Your task to perform on an android device: Open ESPN.com Image 0: 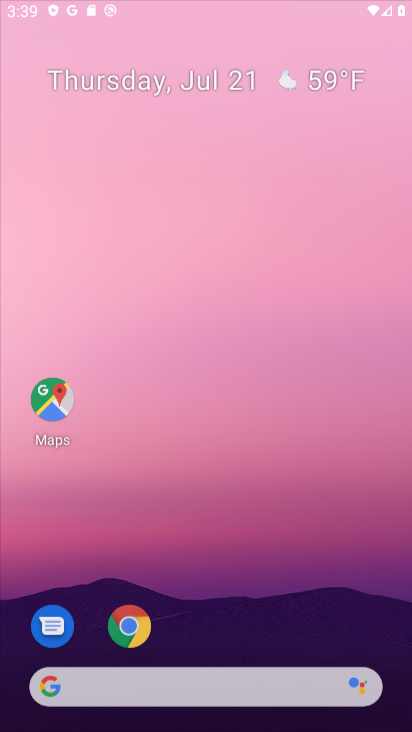
Step 0: click (143, 211)
Your task to perform on an android device: Open ESPN.com Image 1: 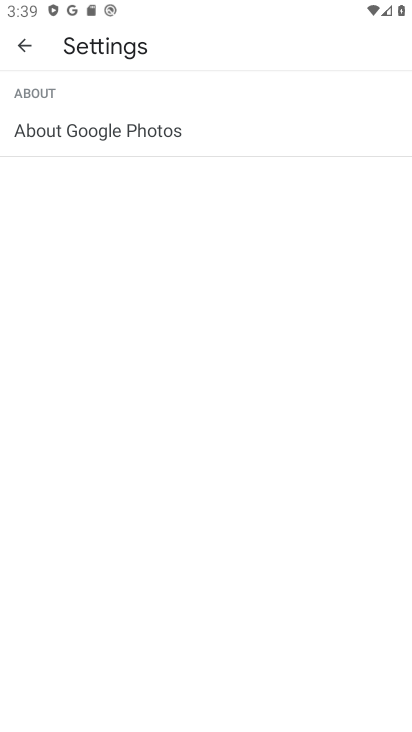
Step 1: drag from (159, 563) to (169, 154)
Your task to perform on an android device: Open ESPN.com Image 2: 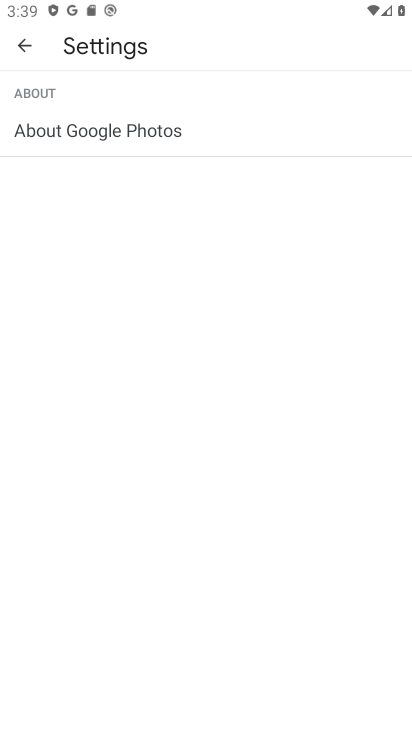
Step 2: click (25, 42)
Your task to perform on an android device: Open ESPN.com Image 3: 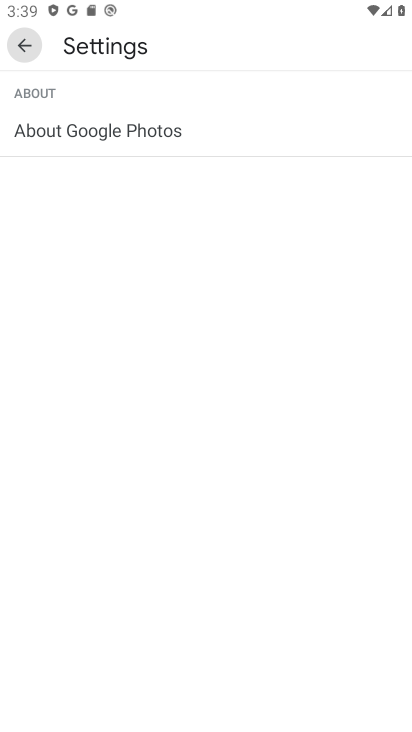
Step 3: click (25, 42)
Your task to perform on an android device: Open ESPN.com Image 4: 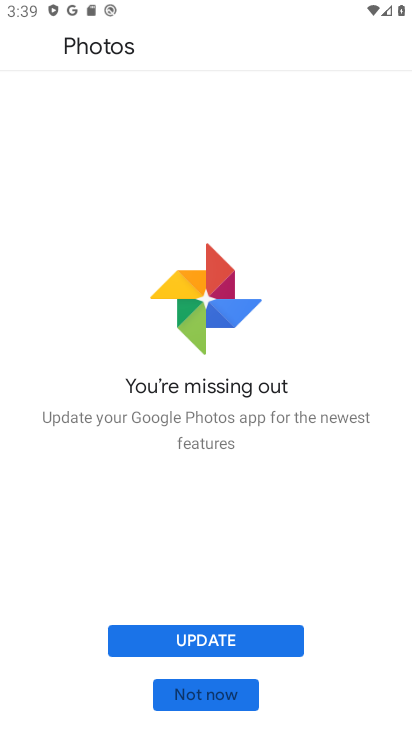
Step 4: press back button
Your task to perform on an android device: Open ESPN.com Image 5: 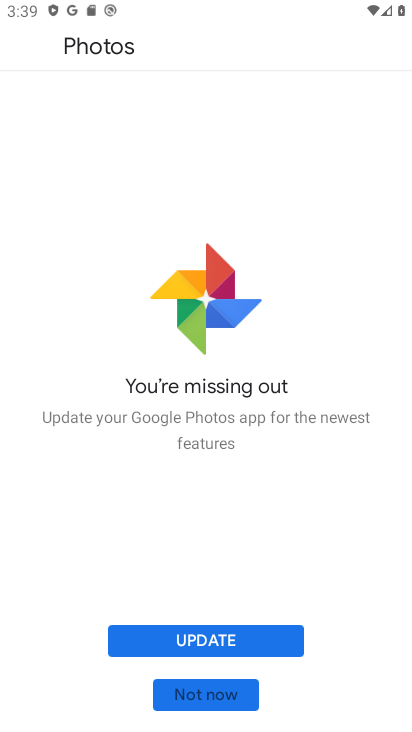
Step 5: press back button
Your task to perform on an android device: Open ESPN.com Image 6: 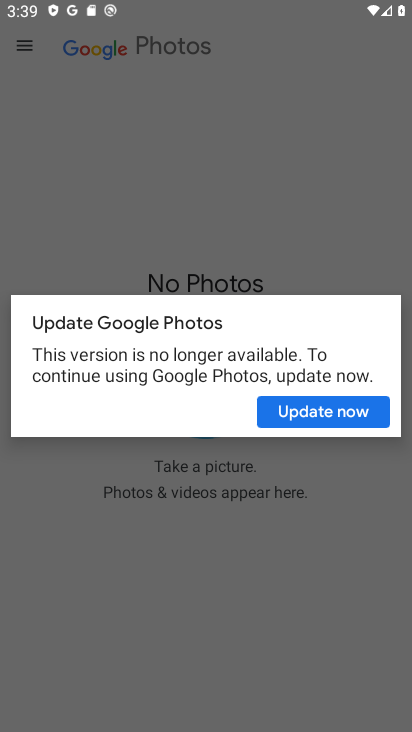
Step 6: press back button
Your task to perform on an android device: Open ESPN.com Image 7: 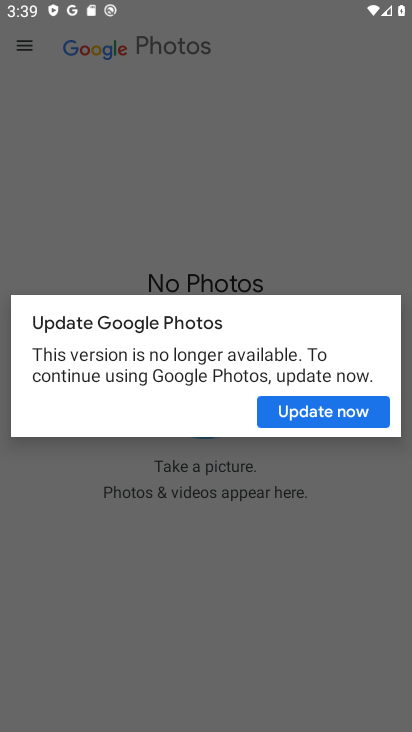
Step 7: click (206, 139)
Your task to perform on an android device: Open ESPN.com Image 8: 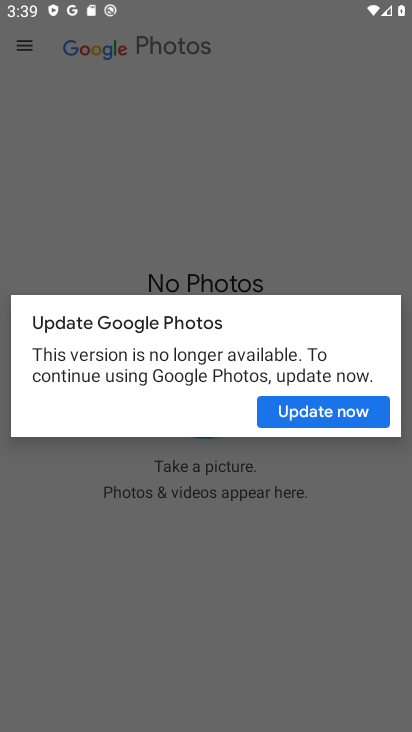
Step 8: press back button
Your task to perform on an android device: Open ESPN.com Image 9: 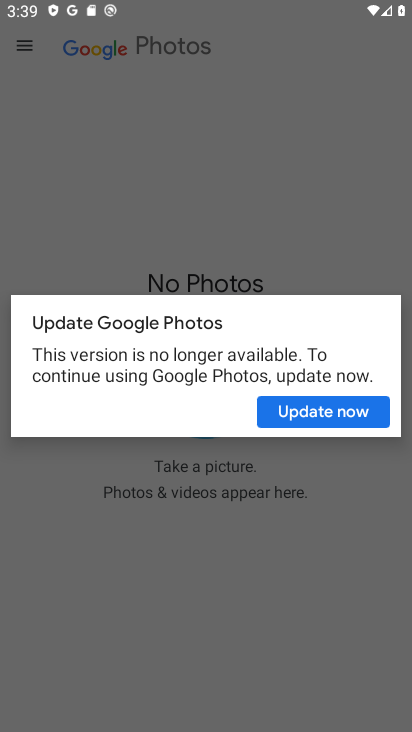
Step 9: press back button
Your task to perform on an android device: Open ESPN.com Image 10: 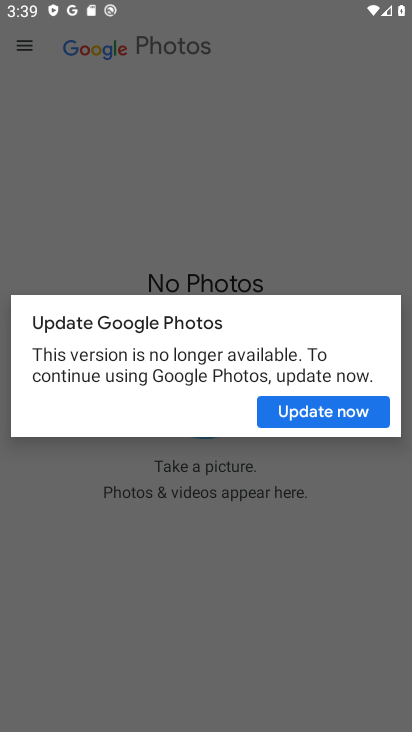
Step 10: press home button
Your task to perform on an android device: Open ESPN.com Image 11: 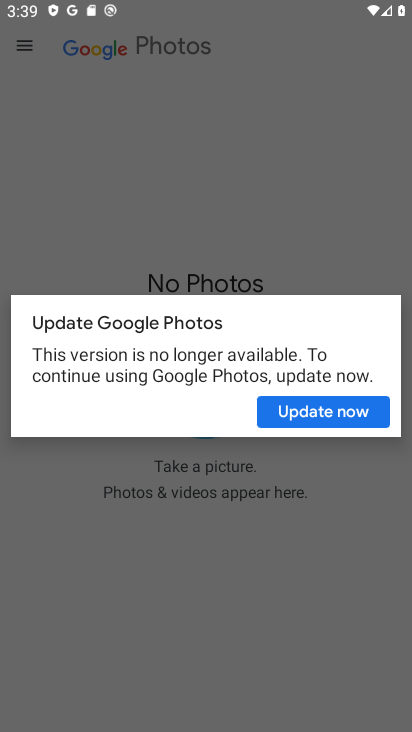
Step 11: press home button
Your task to perform on an android device: Open ESPN.com Image 12: 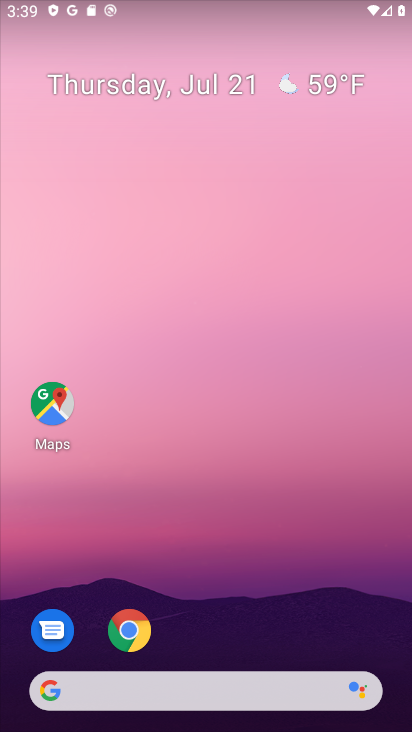
Step 12: drag from (249, 681) to (148, 117)
Your task to perform on an android device: Open ESPN.com Image 13: 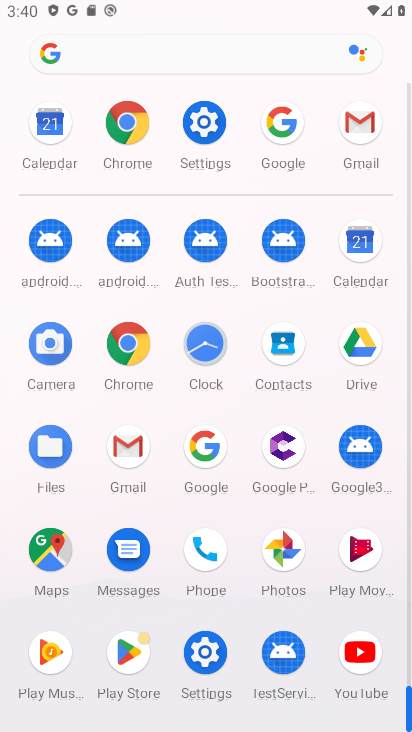
Step 13: click (135, 124)
Your task to perform on an android device: Open ESPN.com Image 14: 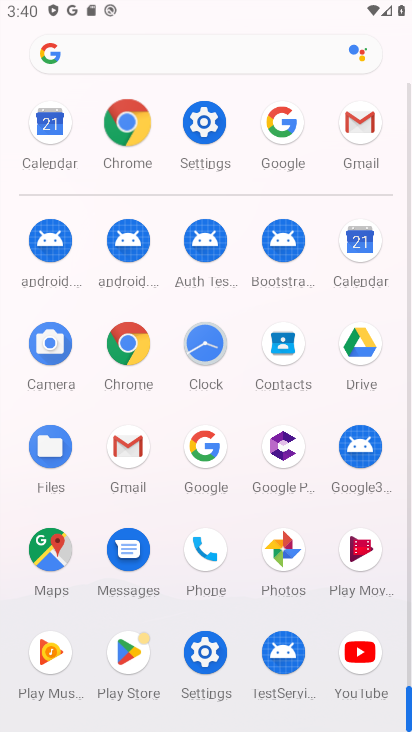
Step 14: click (135, 124)
Your task to perform on an android device: Open ESPN.com Image 15: 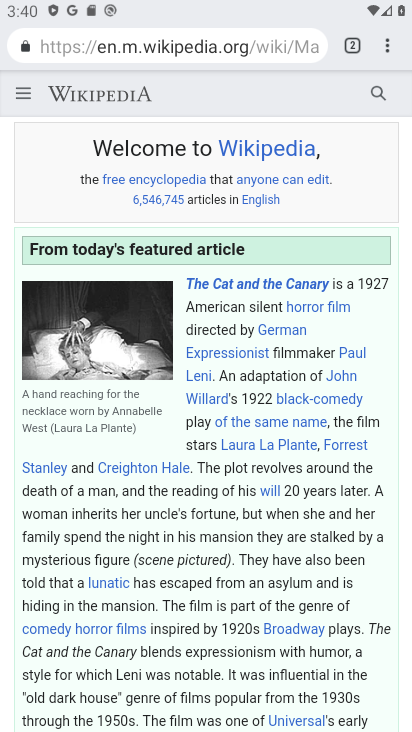
Step 15: press back button
Your task to perform on an android device: Open ESPN.com Image 16: 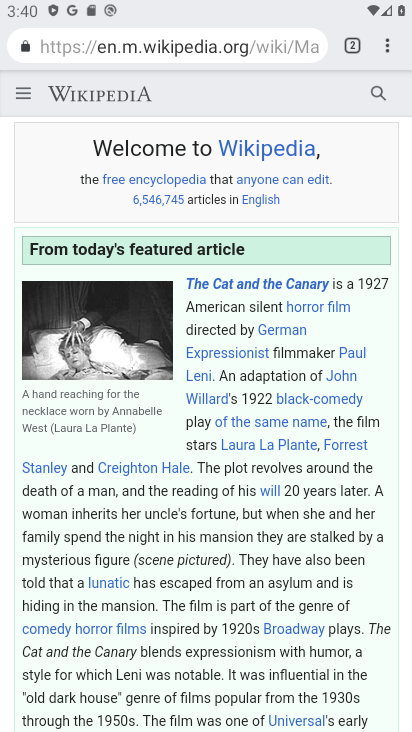
Step 16: press back button
Your task to perform on an android device: Open ESPN.com Image 17: 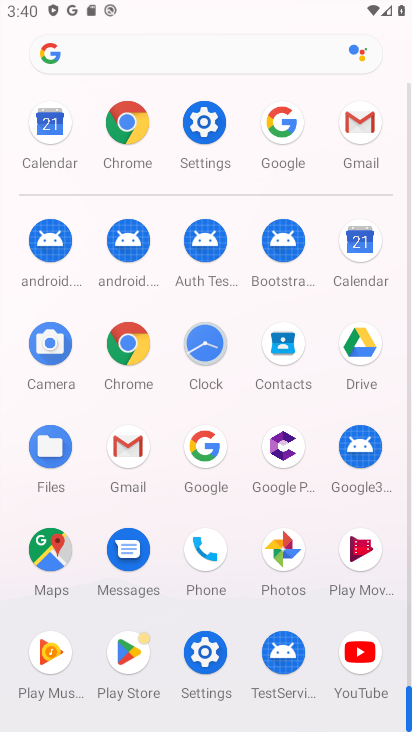
Step 17: click (123, 134)
Your task to perform on an android device: Open ESPN.com Image 18: 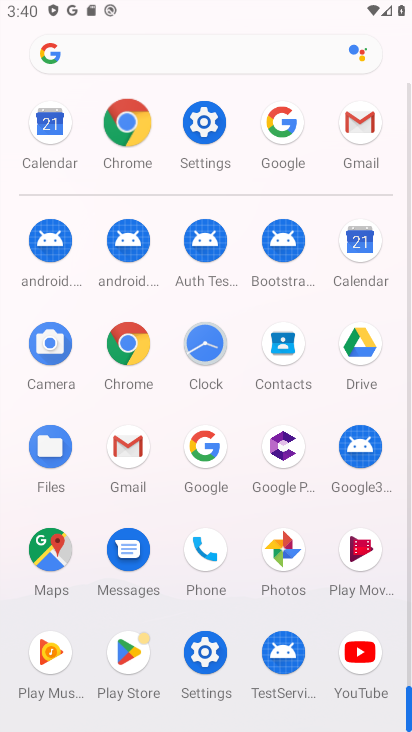
Step 18: click (133, 115)
Your task to perform on an android device: Open ESPN.com Image 19: 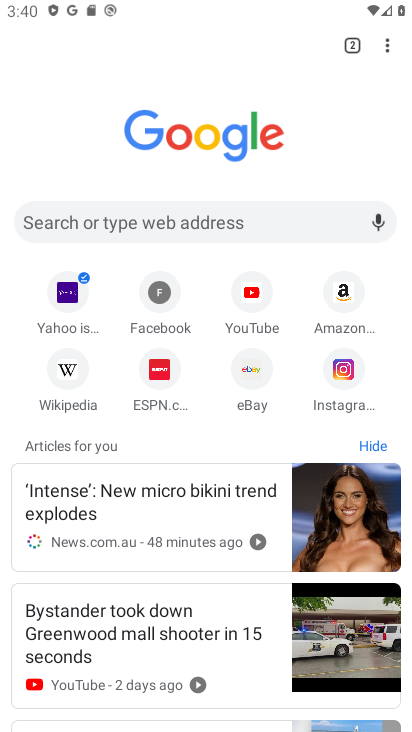
Step 19: click (161, 373)
Your task to perform on an android device: Open ESPN.com Image 20: 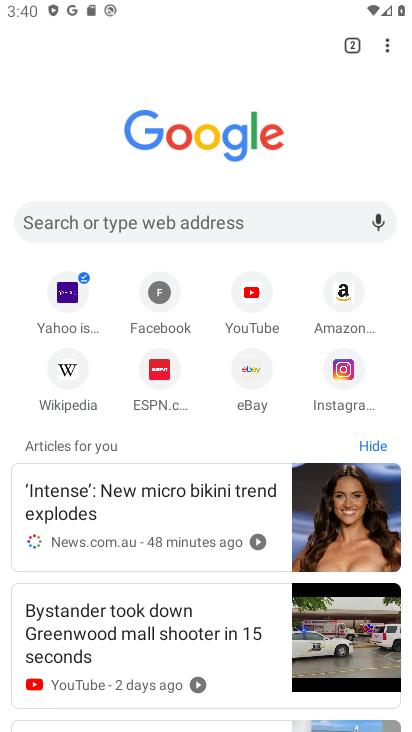
Step 20: click (161, 373)
Your task to perform on an android device: Open ESPN.com Image 21: 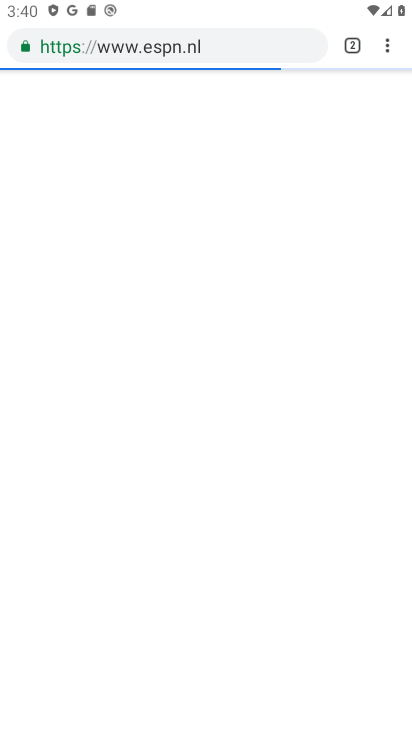
Step 21: task complete